Your task to perform on an android device: search for starred emails in the gmail app Image 0: 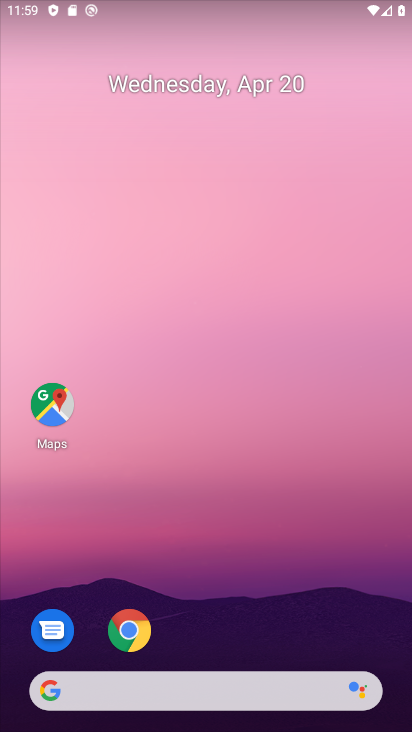
Step 0: drag from (258, 559) to (344, 11)
Your task to perform on an android device: search for starred emails in the gmail app Image 1: 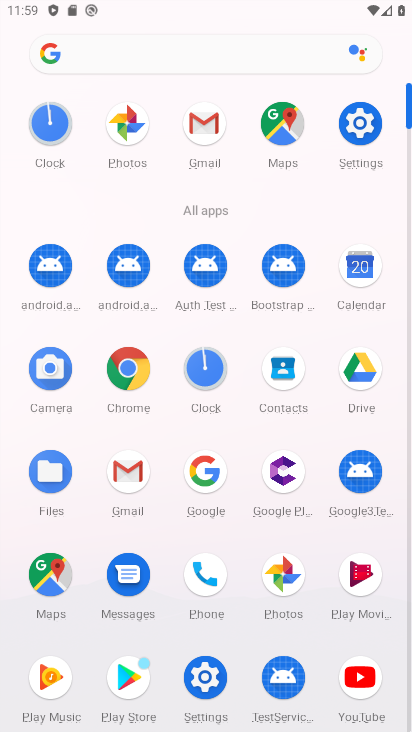
Step 1: click (191, 132)
Your task to perform on an android device: search for starred emails in the gmail app Image 2: 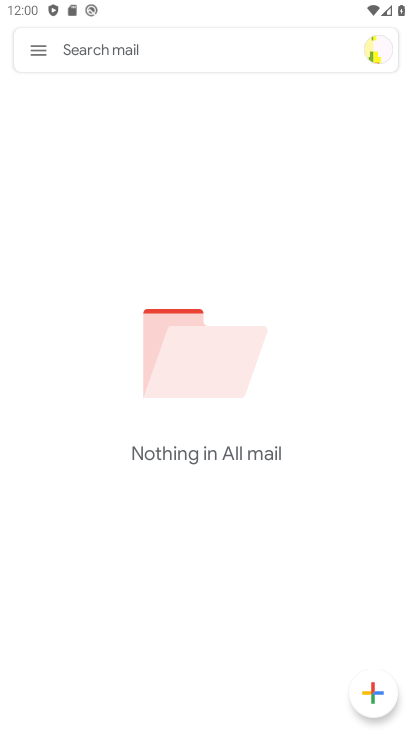
Step 2: click (26, 48)
Your task to perform on an android device: search for starred emails in the gmail app Image 3: 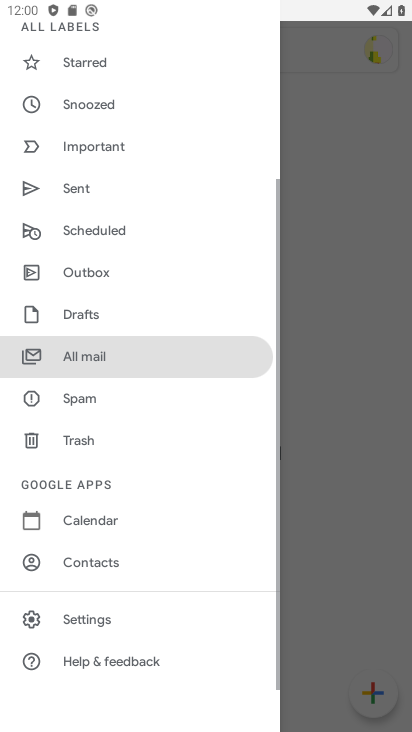
Step 3: drag from (135, 153) to (182, 382)
Your task to perform on an android device: search for starred emails in the gmail app Image 4: 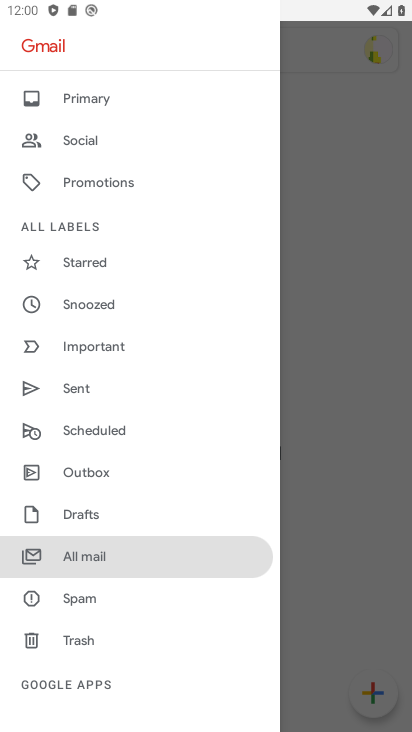
Step 4: click (108, 259)
Your task to perform on an android device: search for starred emails in the gmail app Image 5: 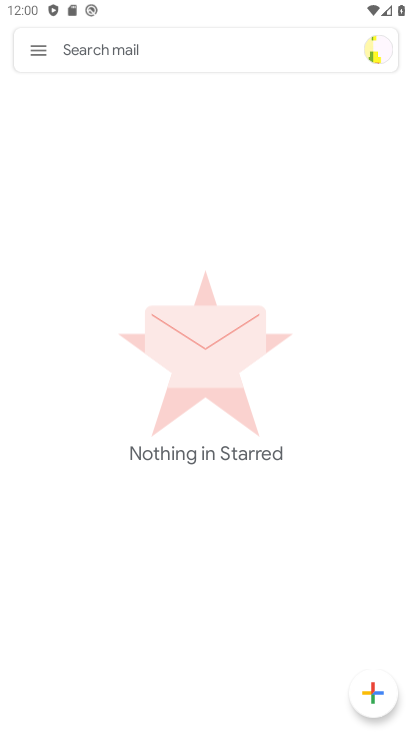
Step 5: task complete